Your task to perform on an android device: Open Yahoo.com Image 0: 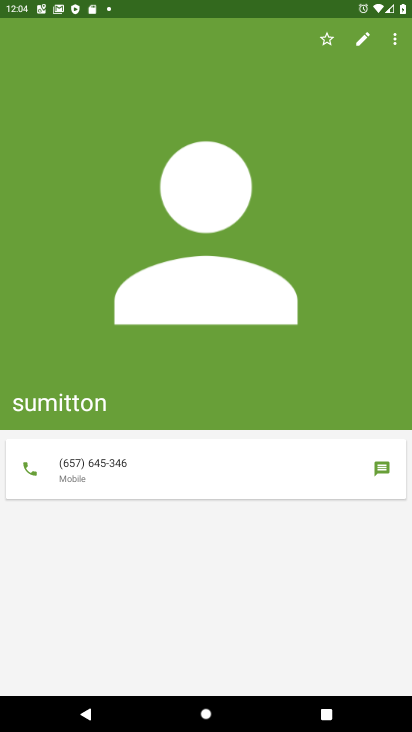
Step 0: press home button
Your task to perform on an android device: Open Yahoo.com Image 1: 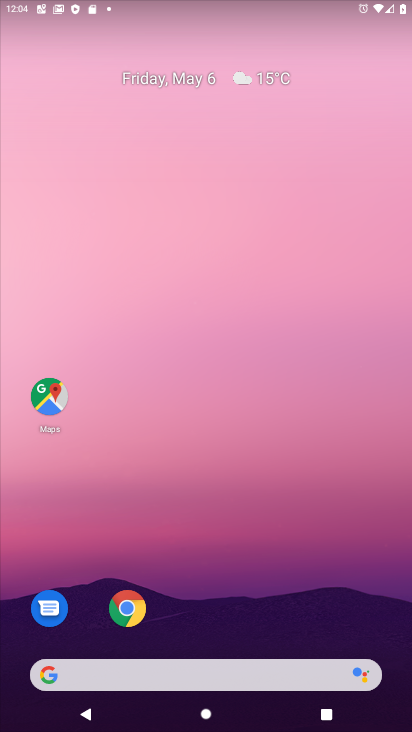
Step 1: click (129, 616)
Your task to perform on an android device: Open Yahoo.com Image 2: 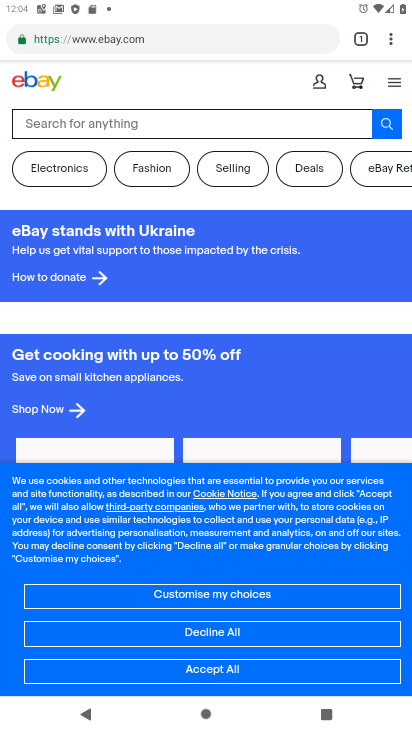
Step 2: click (118, 42)
Your task to perform on an android device: Open Yahoo.com Image 3: 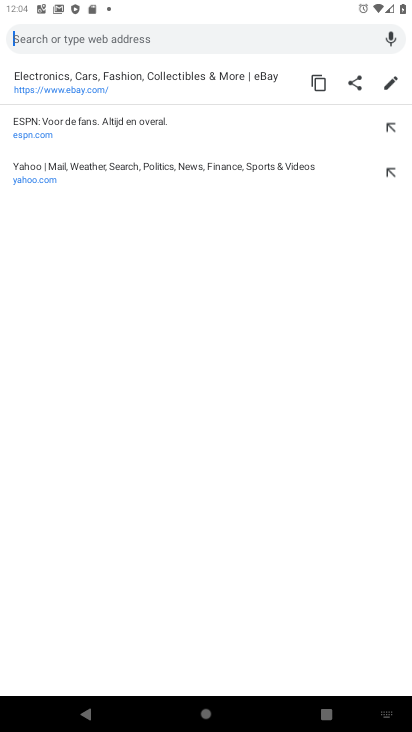
Step 3: click (43, 173)
Your task to perform on an android device: Open Yahoo.com Image 4: 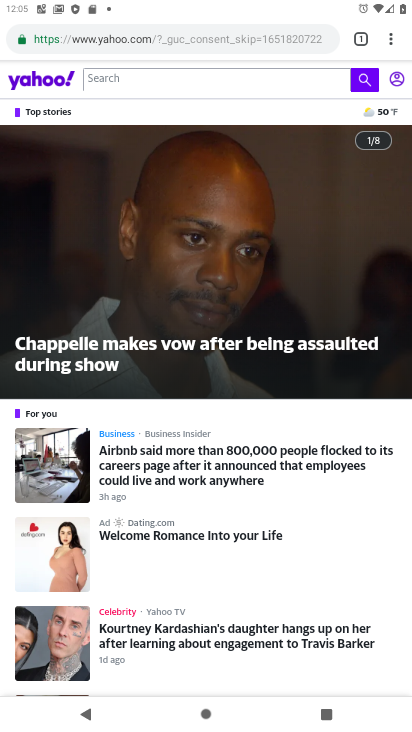
Step 4: task complete